Your task to perform on an android device: Go to Reddit.com Image 0: 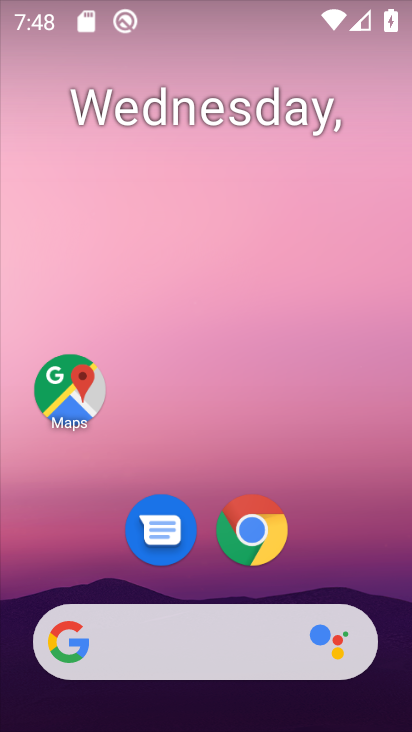
Step 0: drag from (401, 630) to (286, 30)
Your task to perform on an android device: Go to Reddit.com Image 1: 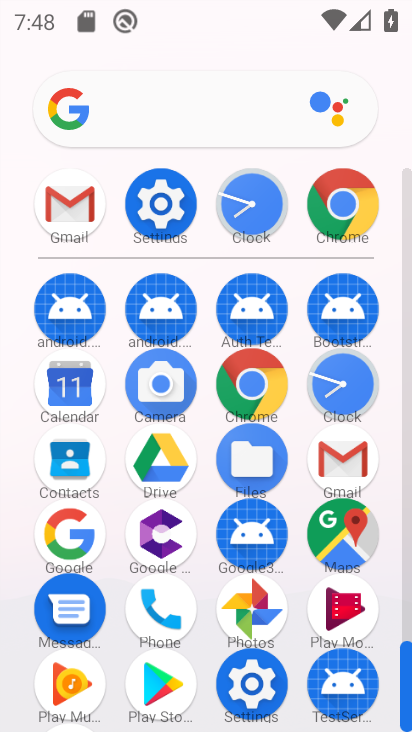
Step 1: click (252, 389)
Your task to perform on an android device: Go to Reddit.com Image 2: 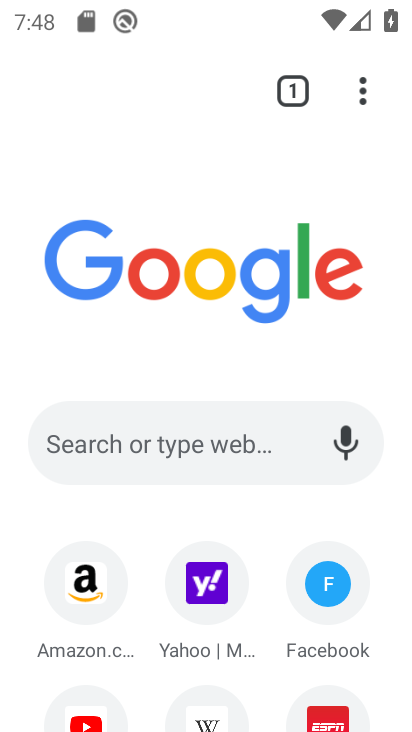
Step 2: click (167, 465)
Your task to perform on an android device: Go to Reddit.com Image 3: 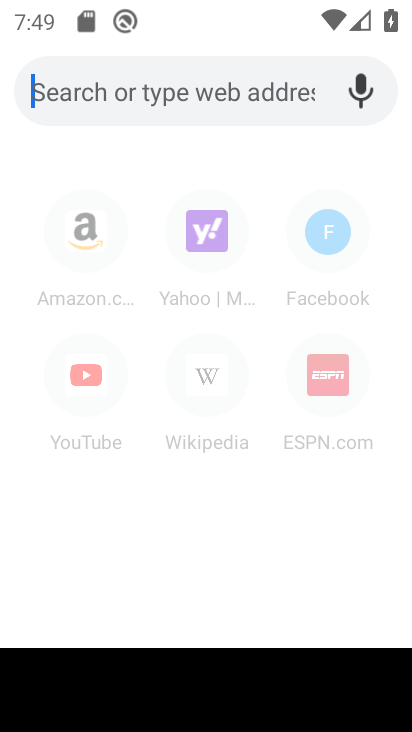
Step 3: type "reddit.com"
Your task to perform on an android device: Go to Reddit.com Image 4: 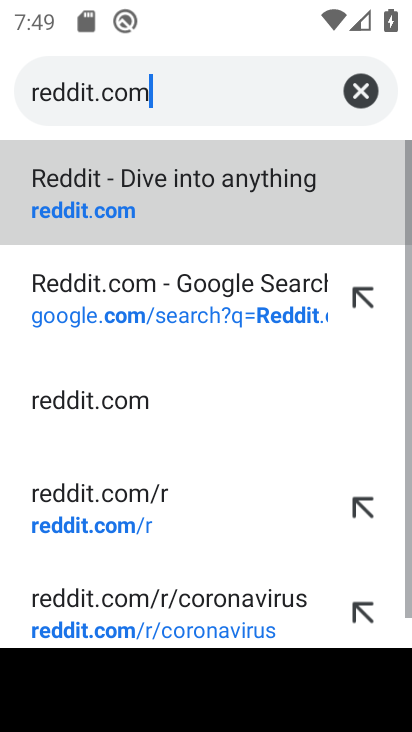
Step 4: click (181, 226)
Your task to perform on an android device: Go to Reddit.com Image 5: 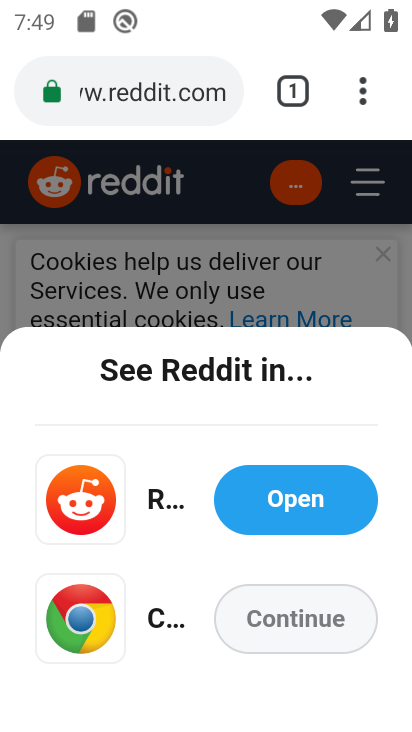
Step 5: task complete